Your task to perform on an android device: turn off picture-in-picture Image 0: 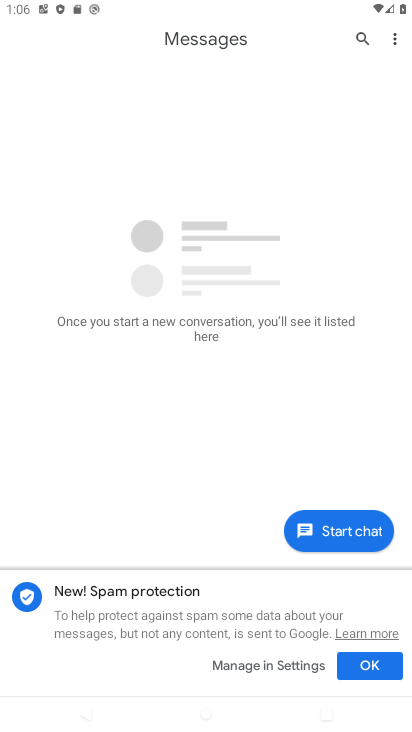
Step 0: press home button
Your task to perform on an android device: turn off picture-in-picture Image 1: 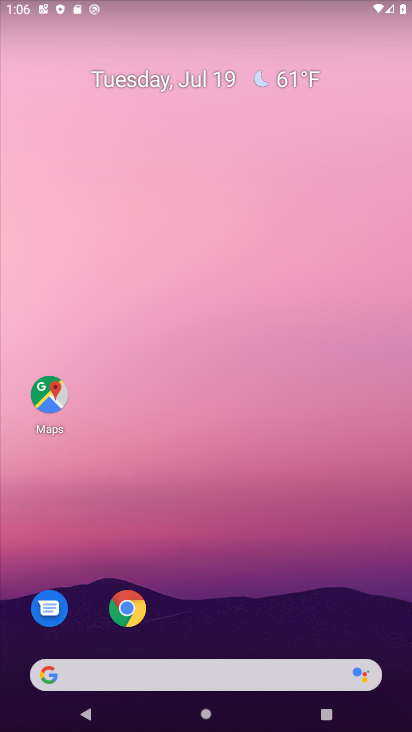
Step 1: drag from (276, 536) to (278, 7)
Your task to perform on an android device: turn off picture-in-picture Image 2: 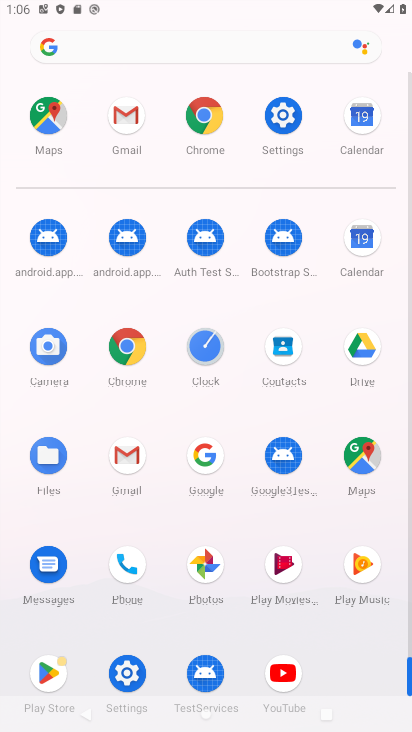
Step 2: click (207, 122)
Your task to perform on an android device: turn off picture-in-picture Image 3: 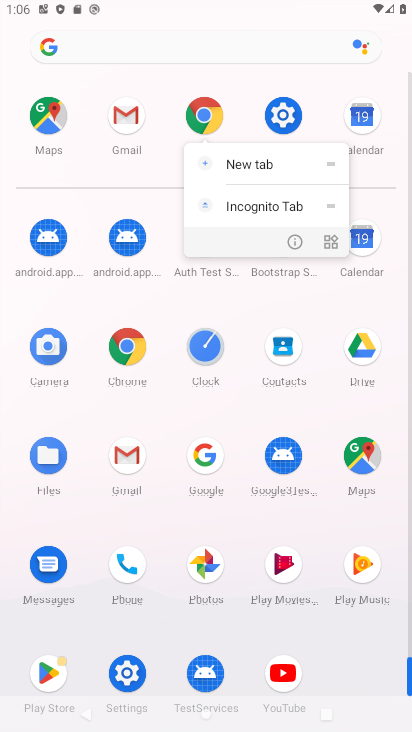
Step 3: click (297, 237)
Your task to perform on an android device: turn off picture-in-picture Image 4: 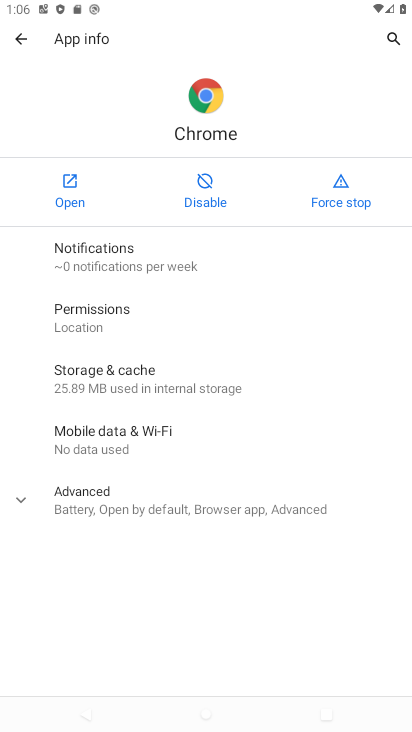
Step 4: click (110, 489)
Your task to perform on an android device: turn off picture-in-picture Image 5: 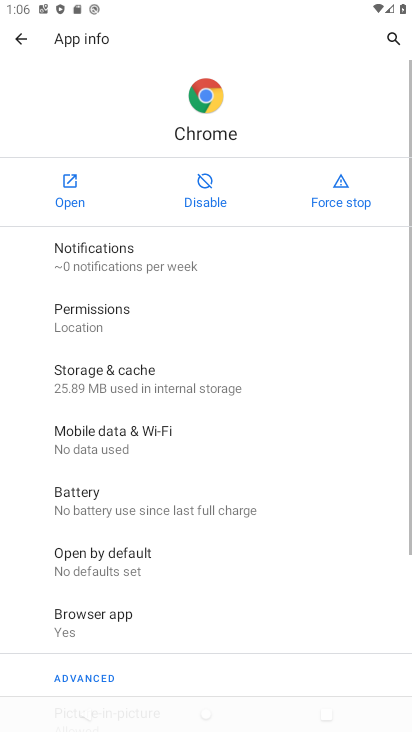
Step 5: drag from (120, 538) to (150, 90)
Your task to perform on an android device: turn off picture-in-picture Image 6: 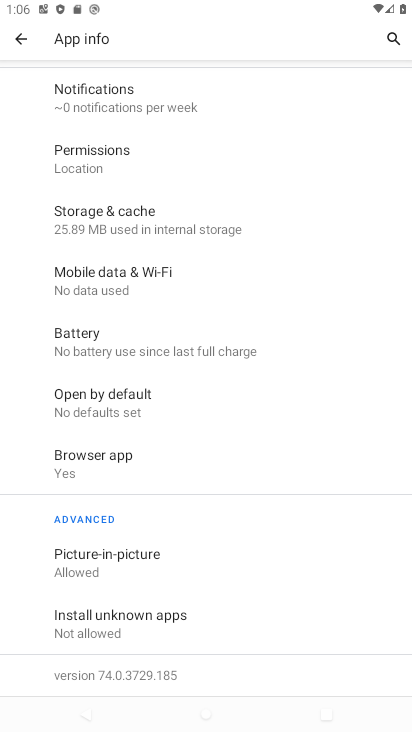
Step 6: click (61, 577)
Your task to perform on an android device: turn off picture-in-picture Image 7: 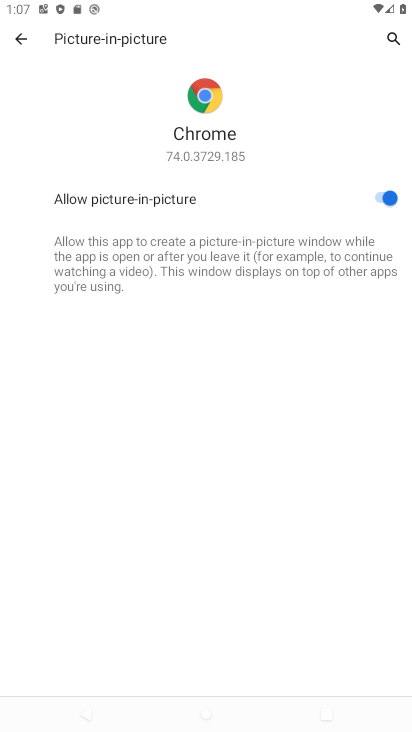
Step 7: click (380, 198)
Your task to perform on an android device: turn off picture-in-picture Image 8: 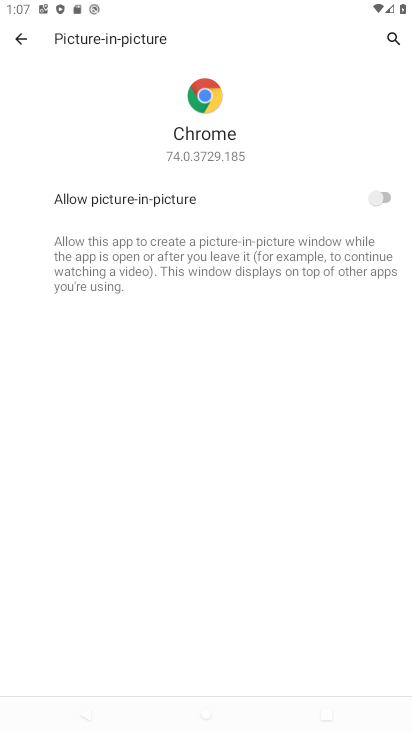
Step 8: task complete